Your task to perform on an android device: toggle notification dots Image 0: 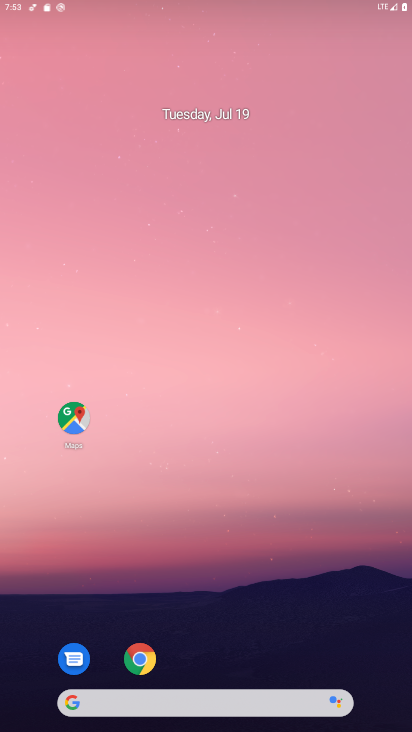
Step 0: drag from (209, 432) to (233, 232)
Your task to perform on an android device: toggle notification dots Image 1: 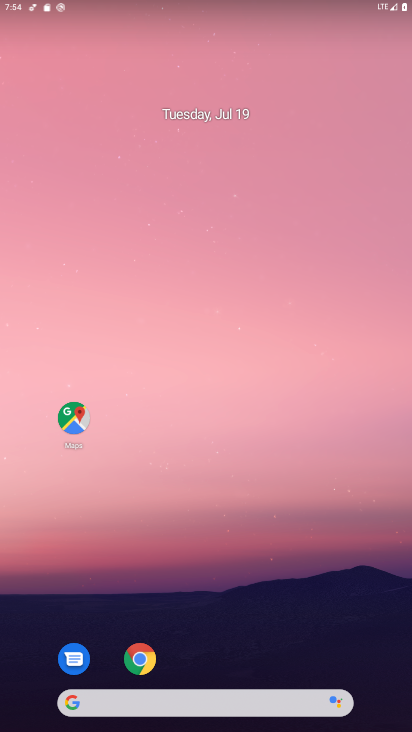
Step 1: drag from (235, 621) to (227, 11)
Your task to perform on an android device: toggle notification dots Image 2: 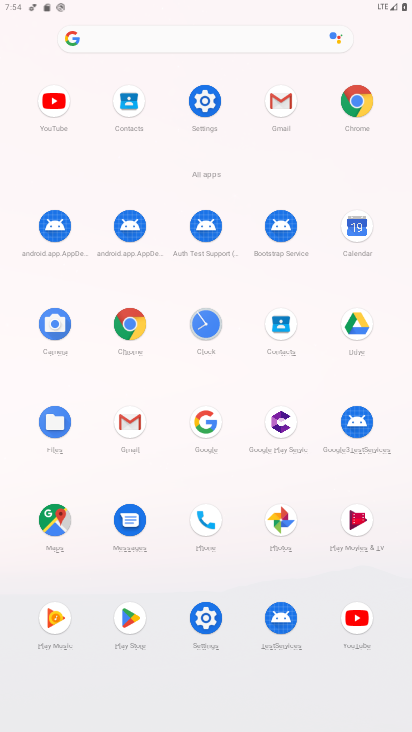
Step 2: click (213, 616)
Your task to perform on an android device: toggle notification dots Image 3: 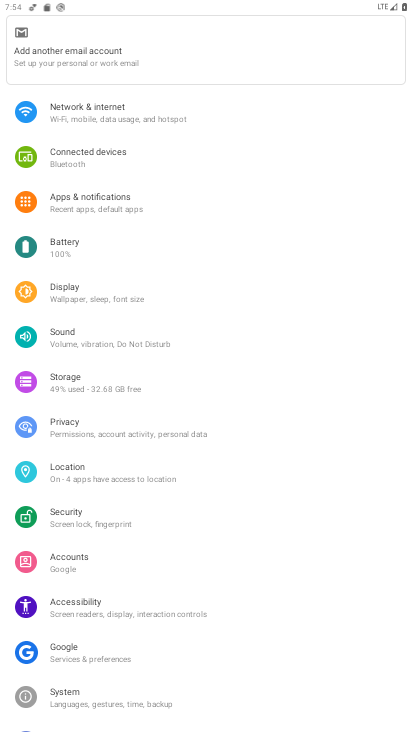
Step 3: click (106, 202)
Your task to perform on an android device: toggle notification dots Image 4: 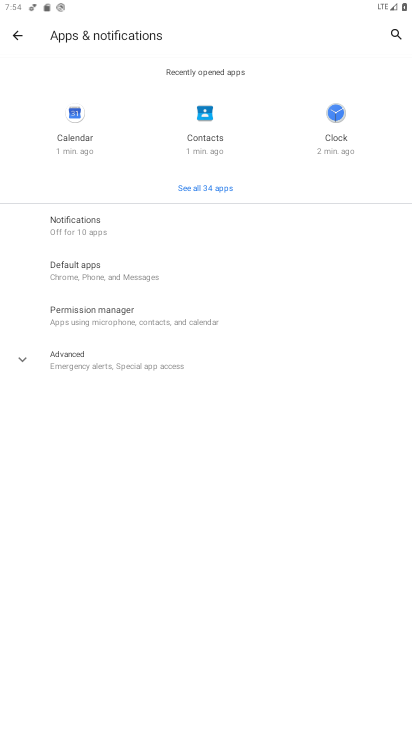
Step 4: click (82, 235)
Your task to perform on an android device: toggle notification dots Image 5: 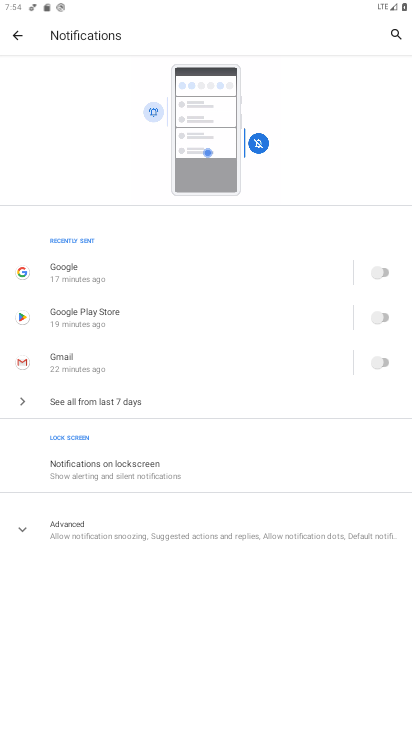
Step 5: click (120, 535)
Your task to perform on an android device: toggle notification dots Image 6: 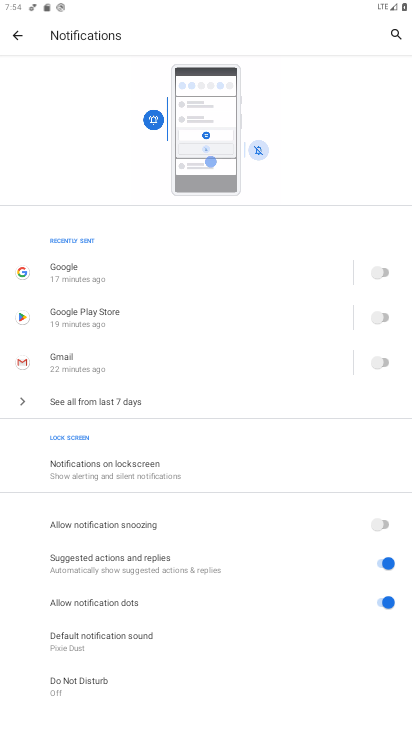
Step 6: click (366, 605)
Your task to perform on an android device: toggle notification dots Image 7: 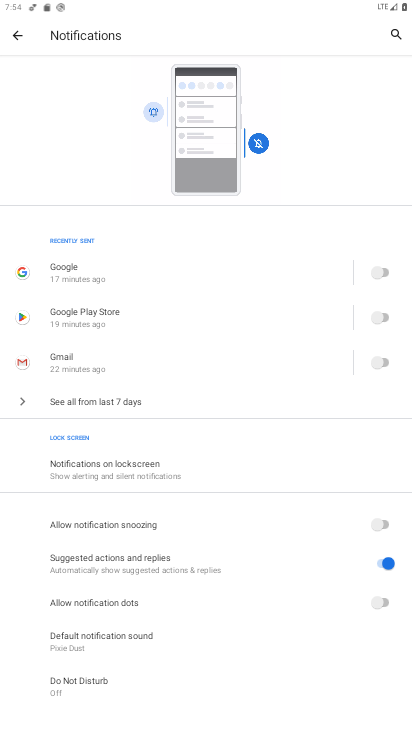
Step 7: task complete